Your task to perform on an android device: snooze an email in the gmail app Image 0: 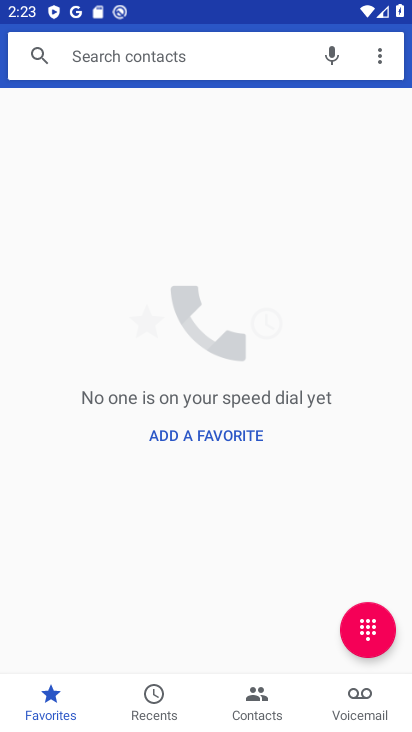
Step 0: press home button
Your task to perform on an android device: snooze an email in the gmail app Image 1: 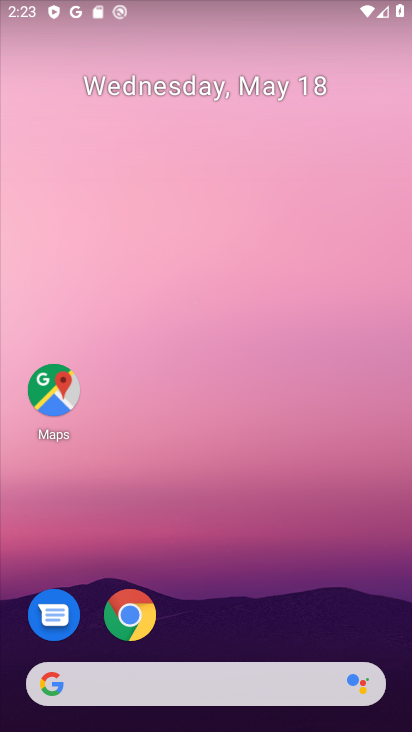
Step 1: drag from (186, 637) to (138, 297)
Your task to perform on an android device: snooze an email in the gmail app Image 2: 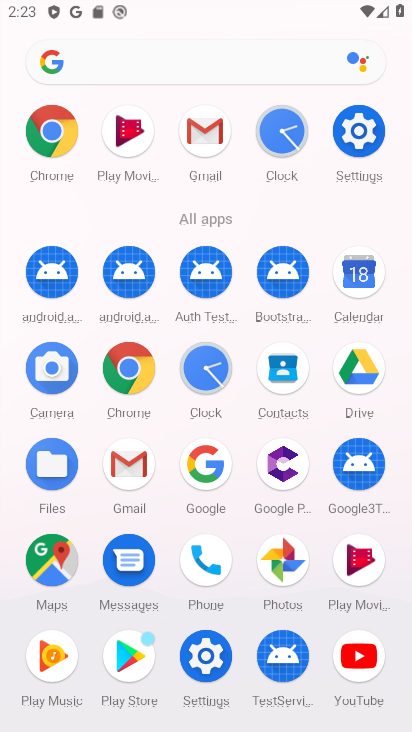
Step 2: click (201, 147)
Your task to perform on an android device: snooze an email in the gmail app Image 3: 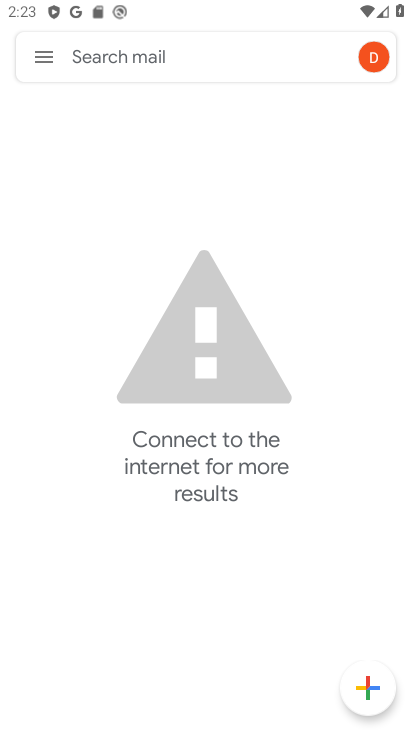
Step 3: click (43, 67)
Your task to perform on an android device: snooze an email in the gmail app Image 4: 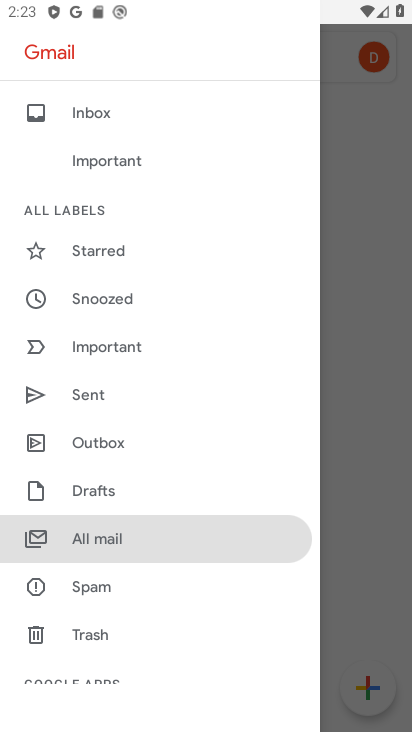
Step 4: click (102, 546)
Your task to perform on an android device: snooze an email in the gmail app Image 5: 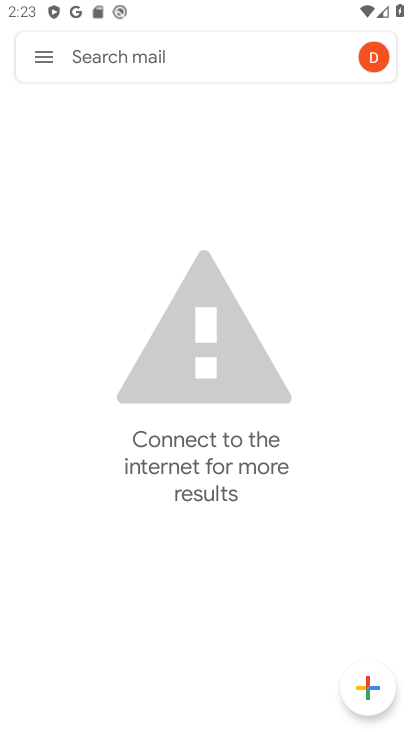
Step 5: task complete